Your task to perform on an android device: Go to Yahoo.com Image 0: 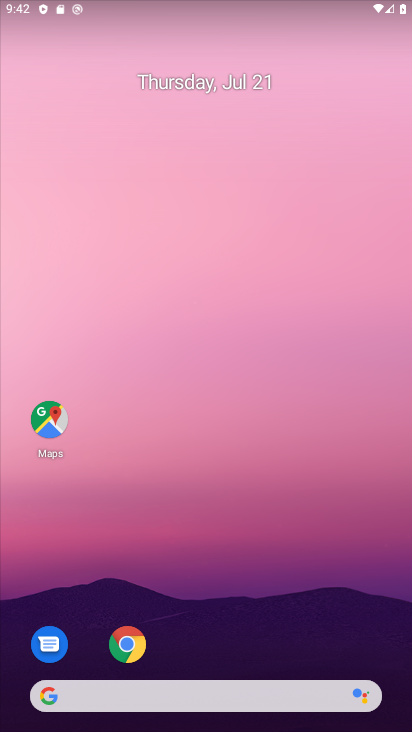
Step 0: drag from (241, 638) to (261, 40)
Your task to perform on an android device: Go to Yahoo.com Image 1: 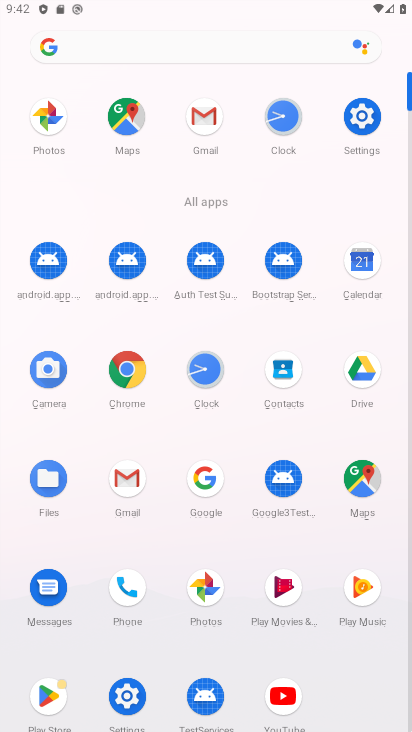
Step 1: click (129, 369)
Your task to perform on an android device: Go to Yahoo.com Image 2: 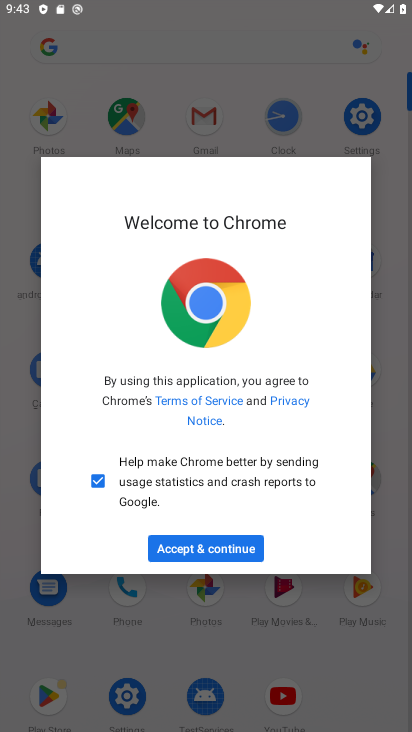
Step 2: click (228, 546)
Your task to perform on an android device: Go to Yahoo.com Image 3: 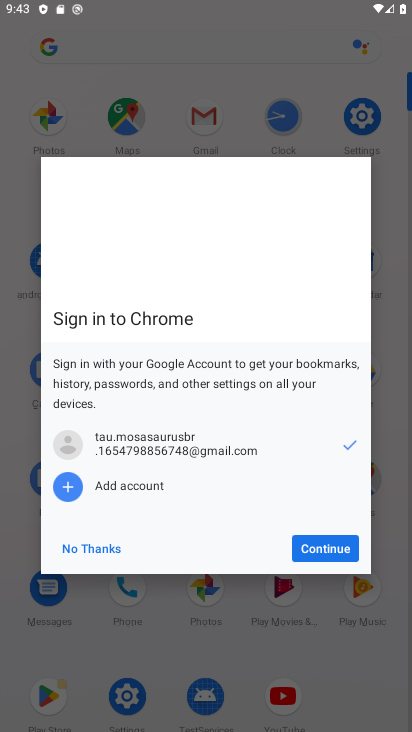
Step 3: click (332, 550)
Your task to perform on an android device: Go to Yahoo.com Image 4: 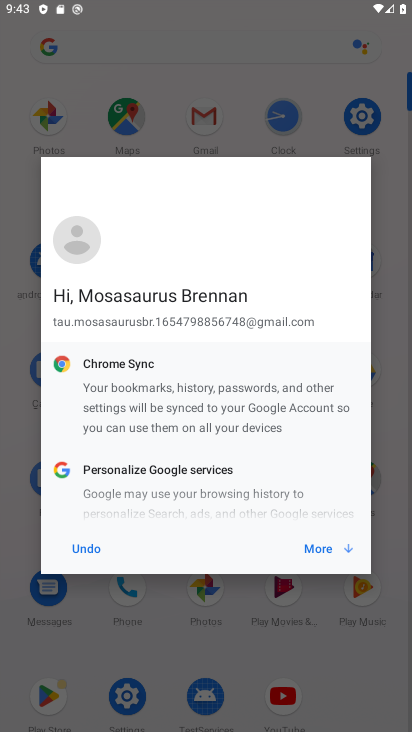
Step 4: click (333, 550)
Your task to perform on an android device: Go to Yahoo.com Image 5: 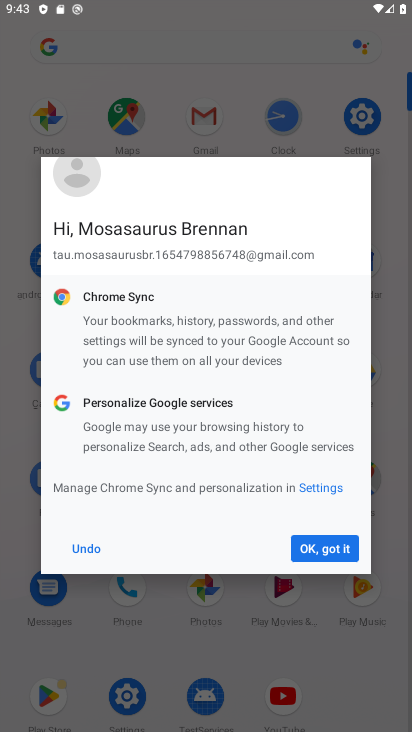
Step 5: click (333, 550)
Your task to perform on an android device: Go to Yahoo.com Image 6: 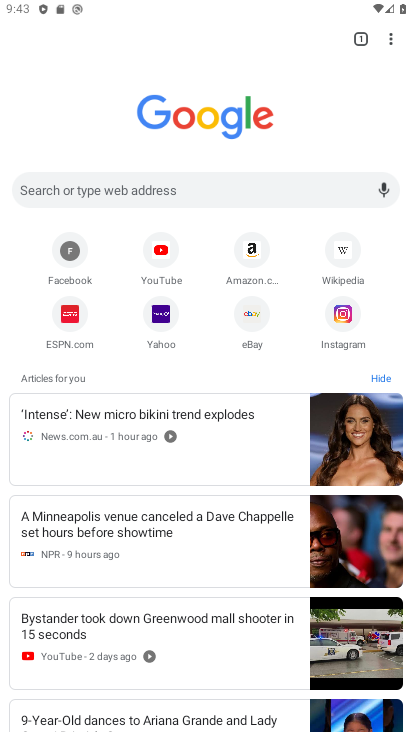
Step 6: click (164, 343)
Your task to perform on an android device: Go to Yahoo.com Image 7: 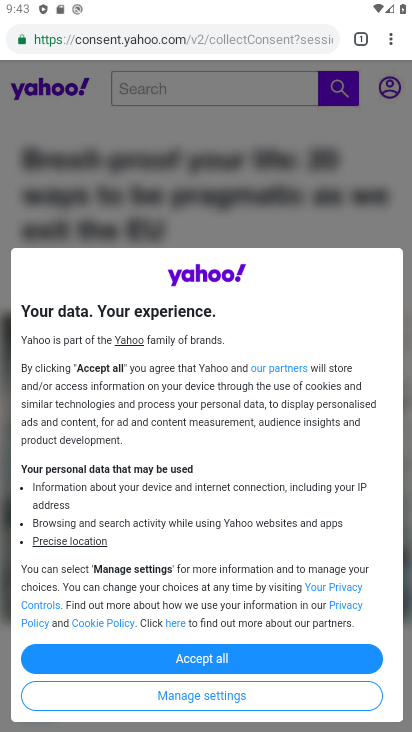
Step 7: task complete